Your task to perform on an android device: Go to Google Image 0: 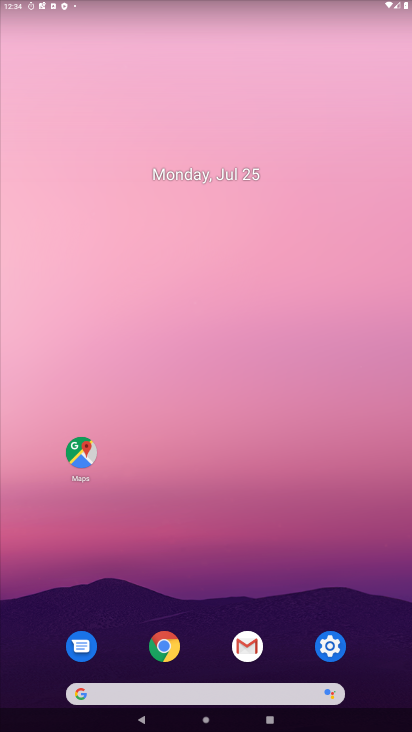
Step 0: click (71, 696)
Your task to perform on an android device: Go to Google Image 1: 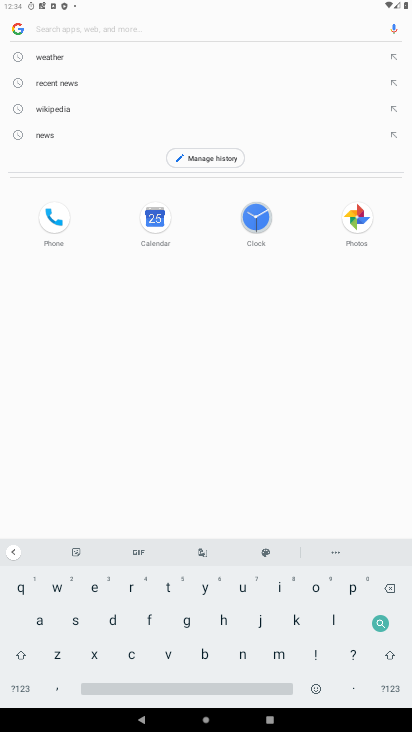
Step 1: click (26, 29)
Your task to perform on an android device: Go to Google Image 2: 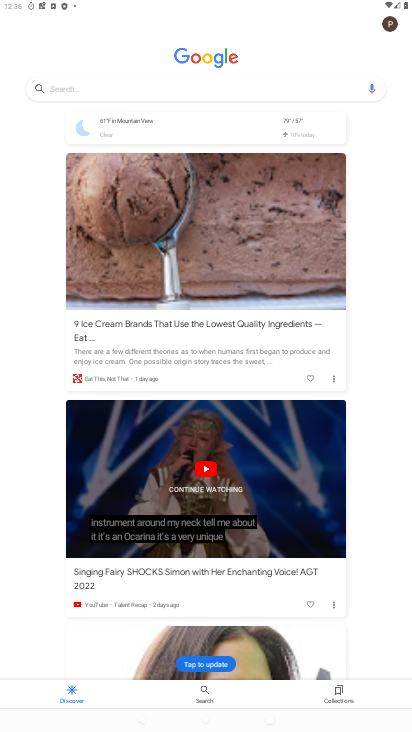
Step 2: task complete